Your task to perform on an android device: Open Android settings Image 0: 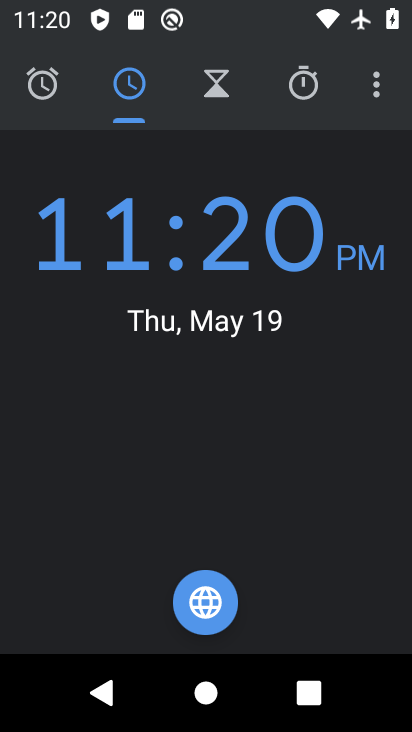
Step 0: press home button
Your task to perform on an android device: Open Android settings Image 1: 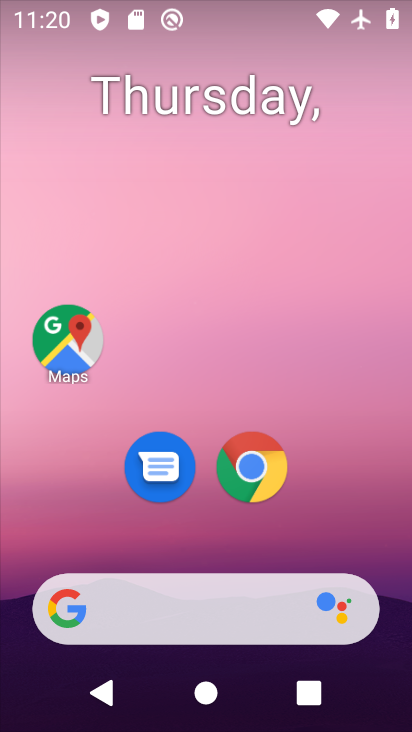
Step 1: drag from (330, 555) to (348, 12)
Your task to perform on an android device: Open Android settings Image 2: 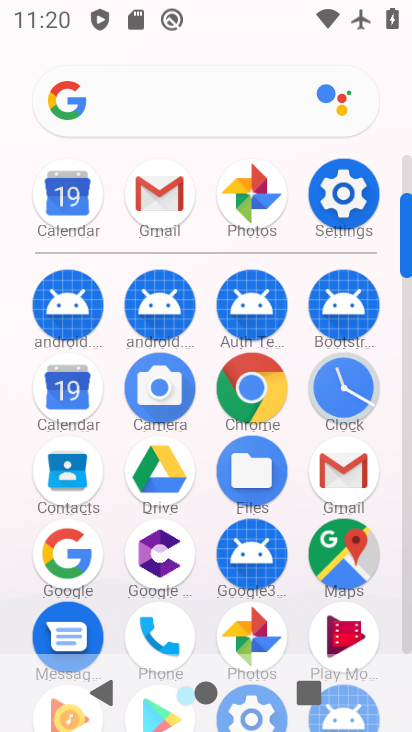
Step 2: click (348, 196)
Your task to perform on an android device: Open Android settings Image 3: 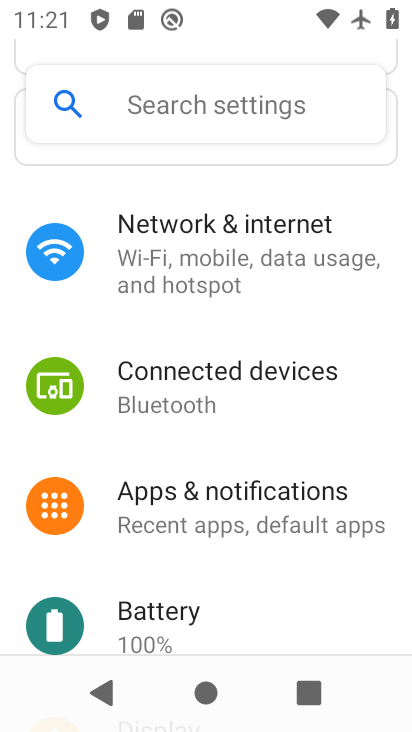
Step 3: task complete